Your task to perform on an android device: open device folders in google photos Image 0: 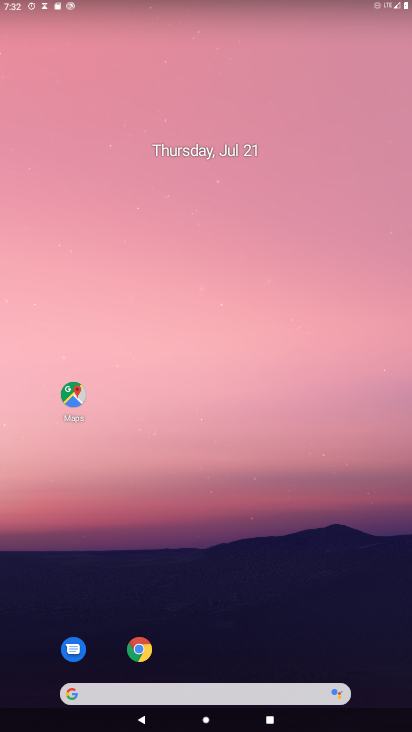
Step 0: drag from (334, 580) to (156, 23)
Your task to perform on an android device: open device folders in google photos Image 1: 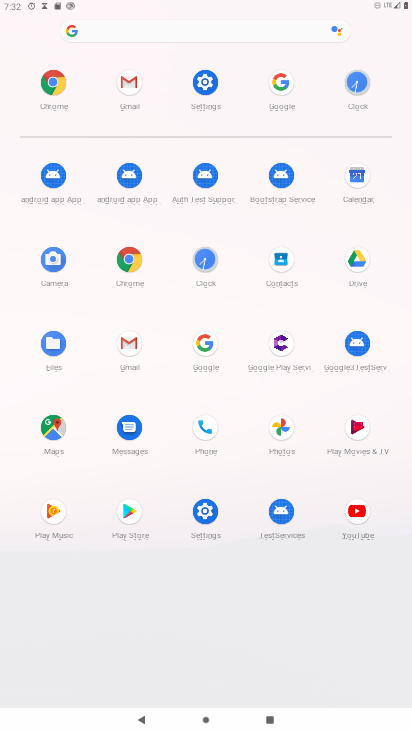
Step 1: click (284, 433)
Your task to perform on an android device: open device folders in google photos Image 2: 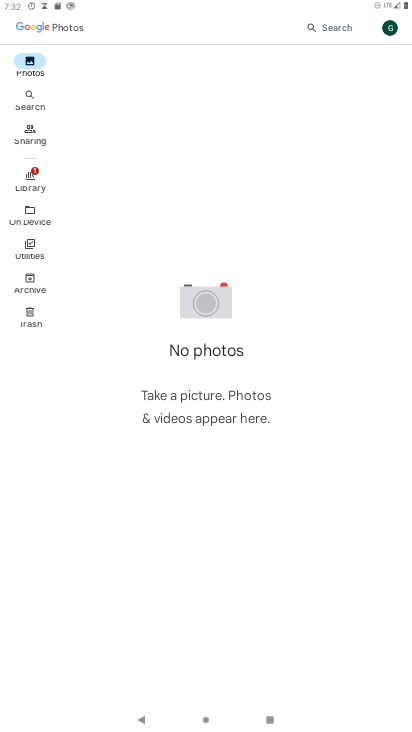
Step 2: task complete